Your task to perform on an android device: set default search engine in the chrome app Image 0: 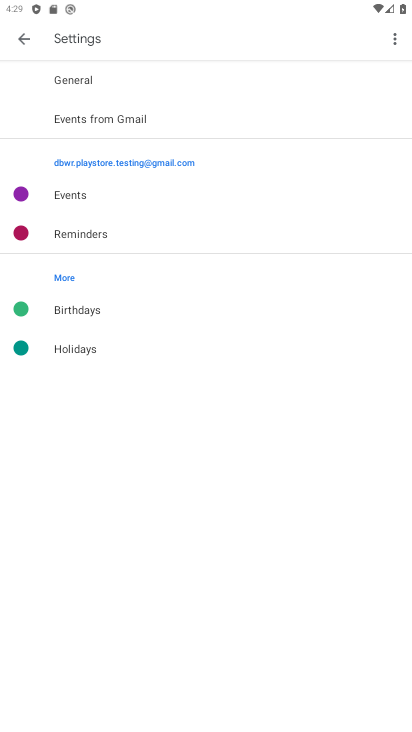
Step 0: press home button
Your task to perform on an android device: set default search engine in the chrome app Image 1: 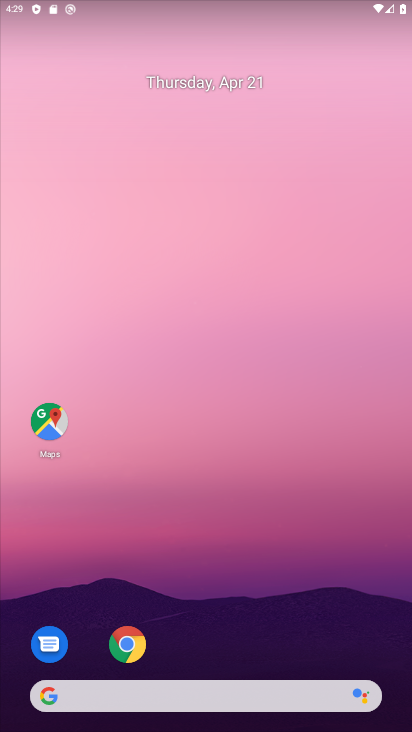
Step 1: click (126, 645)
Your task to perform on an android device: set default search engine in the chrome app Image 2: 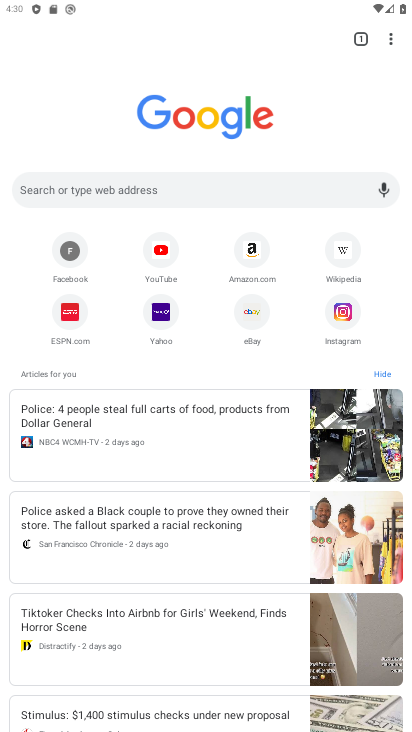
Step 2: drag from (390, 42) to (292, 373)
Your task to perform on an android device: set default search engine in the chrome app Image 3: 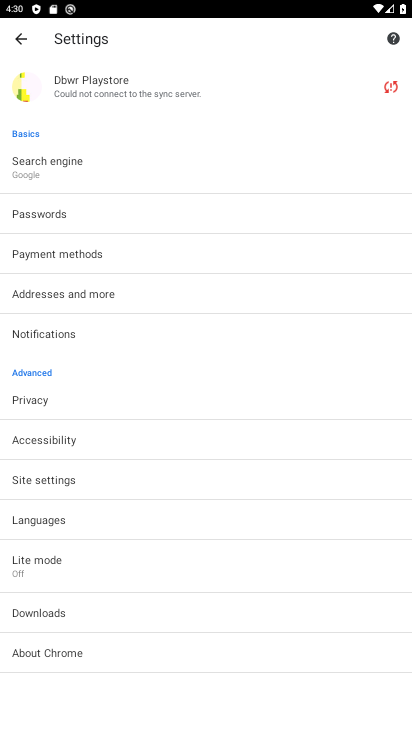
Step 3: click (45, 163)
Your task to perform on an android device: set default search engine in the chrome app Image 4: 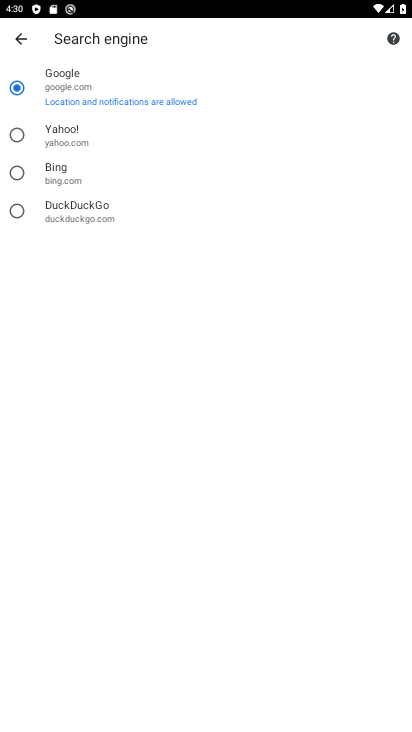
Step 4: click (17, 133)
Your task to perform on an android device: set default search engine in the chrome app Image 5: 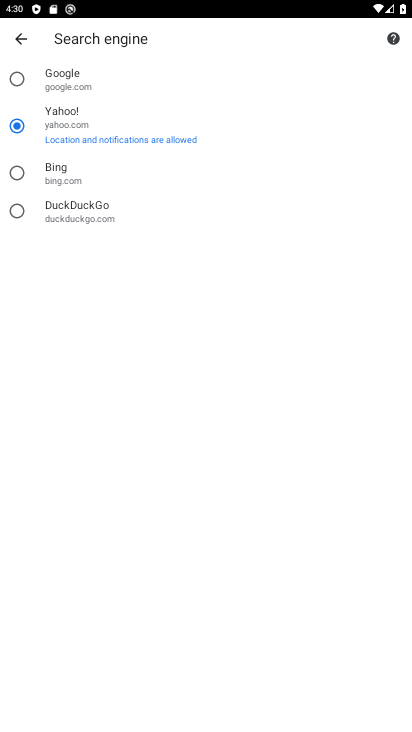
Step 5: task complete